Your task to perform on an android device: Open Google Chrome Image 0: 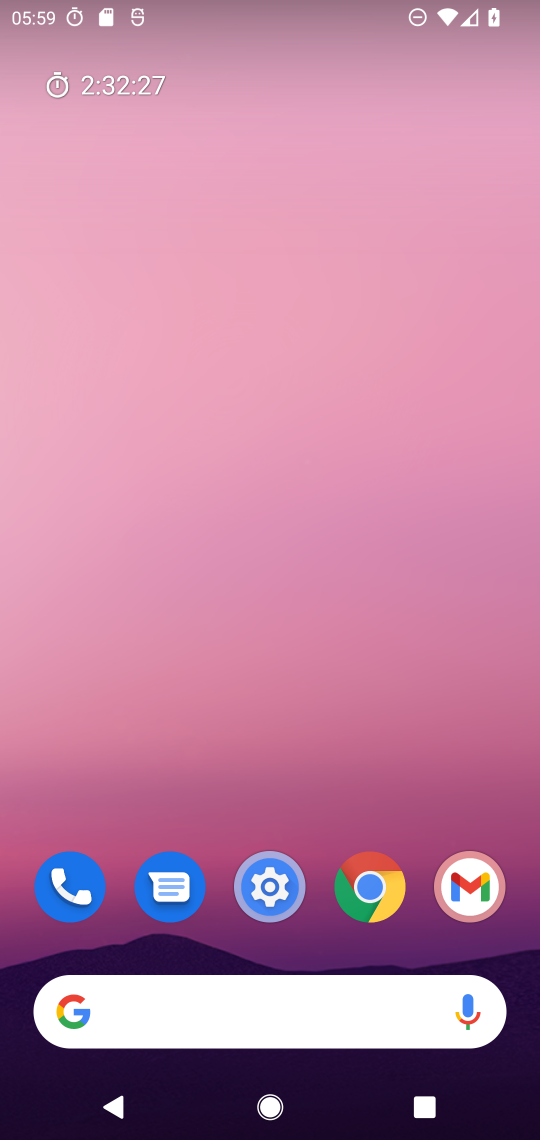
Step 0: press home button
Your task to perform on an android device: Open Google Chrome Image 1: 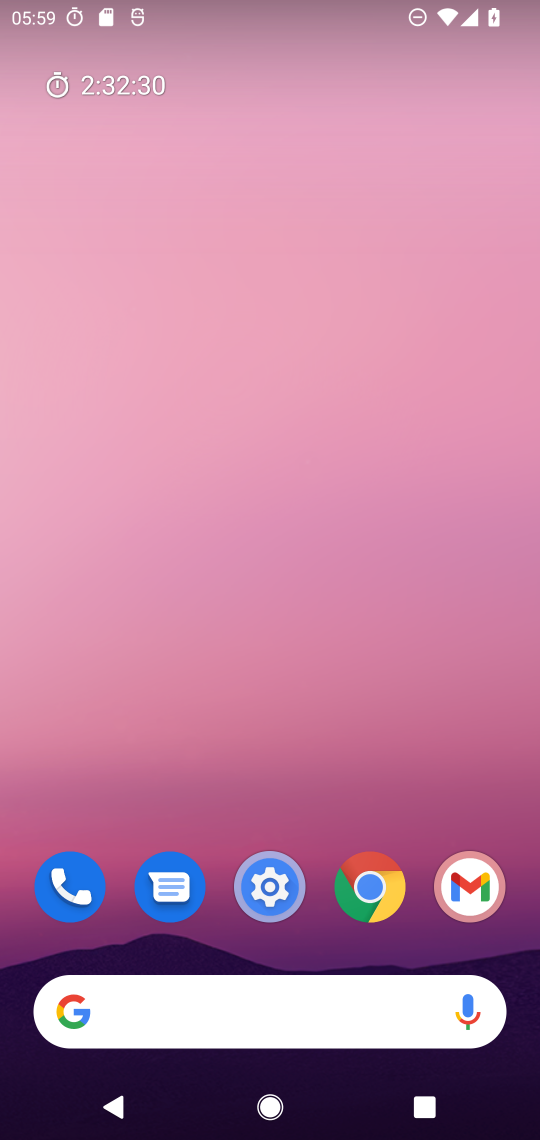
Step 1: drag from (408, 714) to (425, 206)
Your task to perform on an android device: Open Google Chrome Image 2: 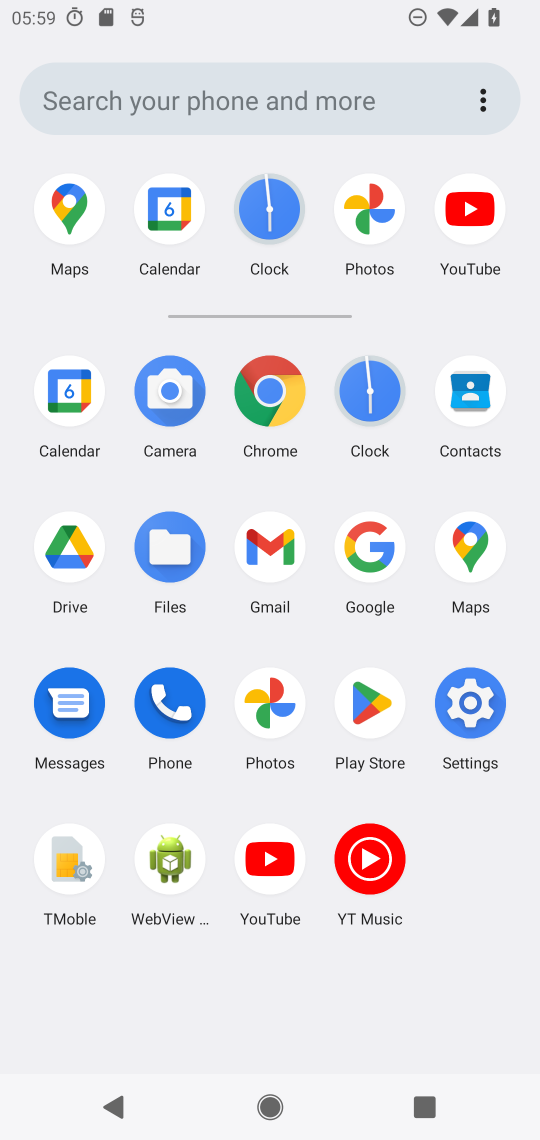
Step 2: click (274, 378)
Your task to perform on an android device: Open Google Chrome Image 3: 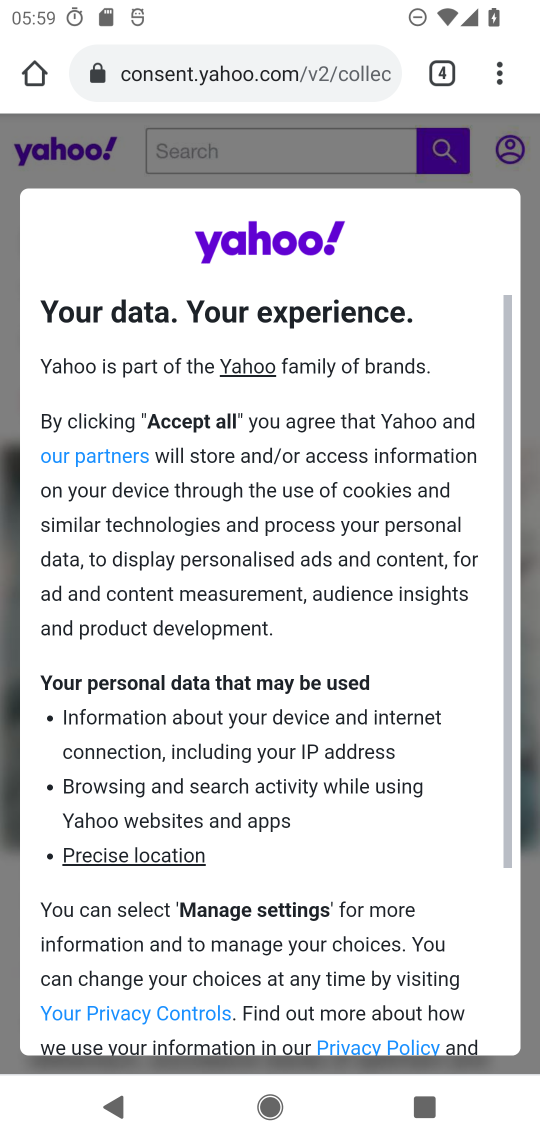
Step 3: task complete